Your task to perform on an android device: toggle wifi Image 0: 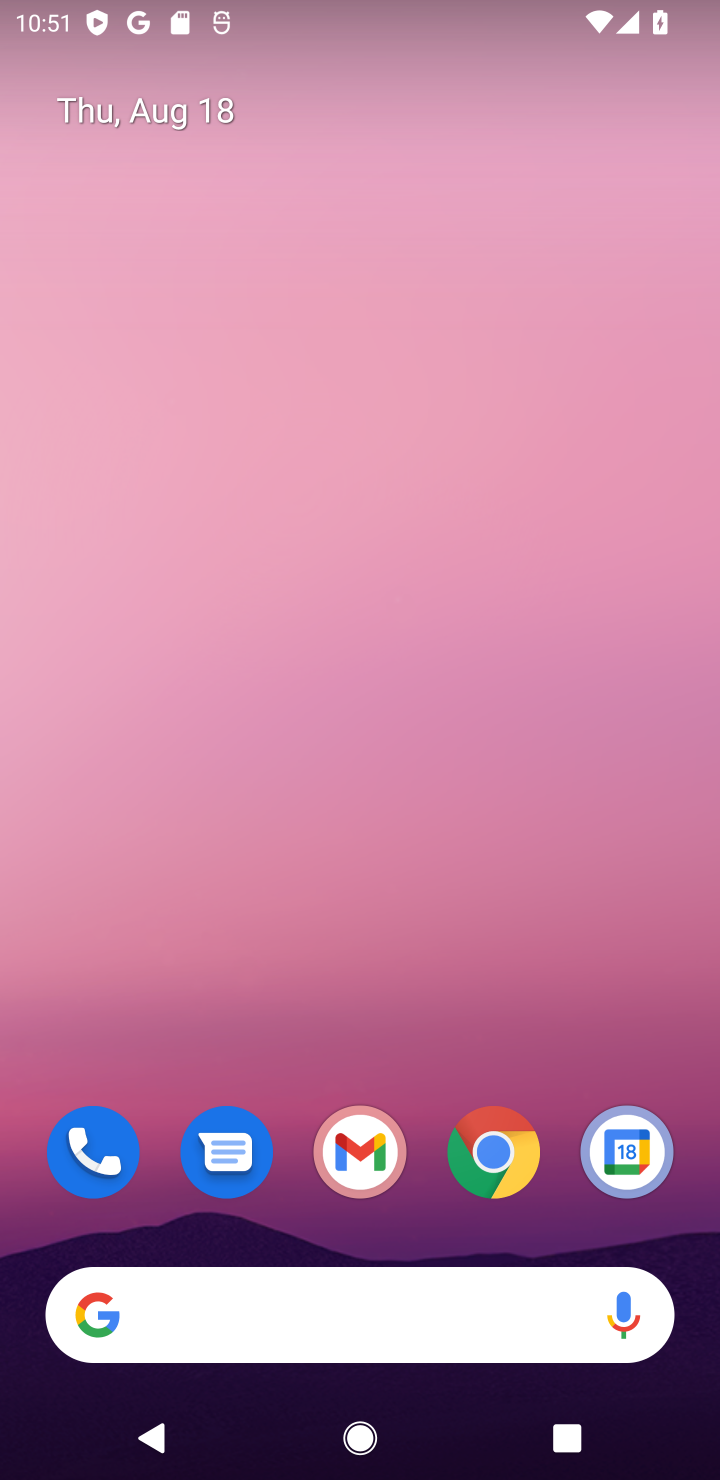
Step 0: drag from (361, 941) to (327, 0)
Your task to perform on an android device: toggle wifi Image 1: 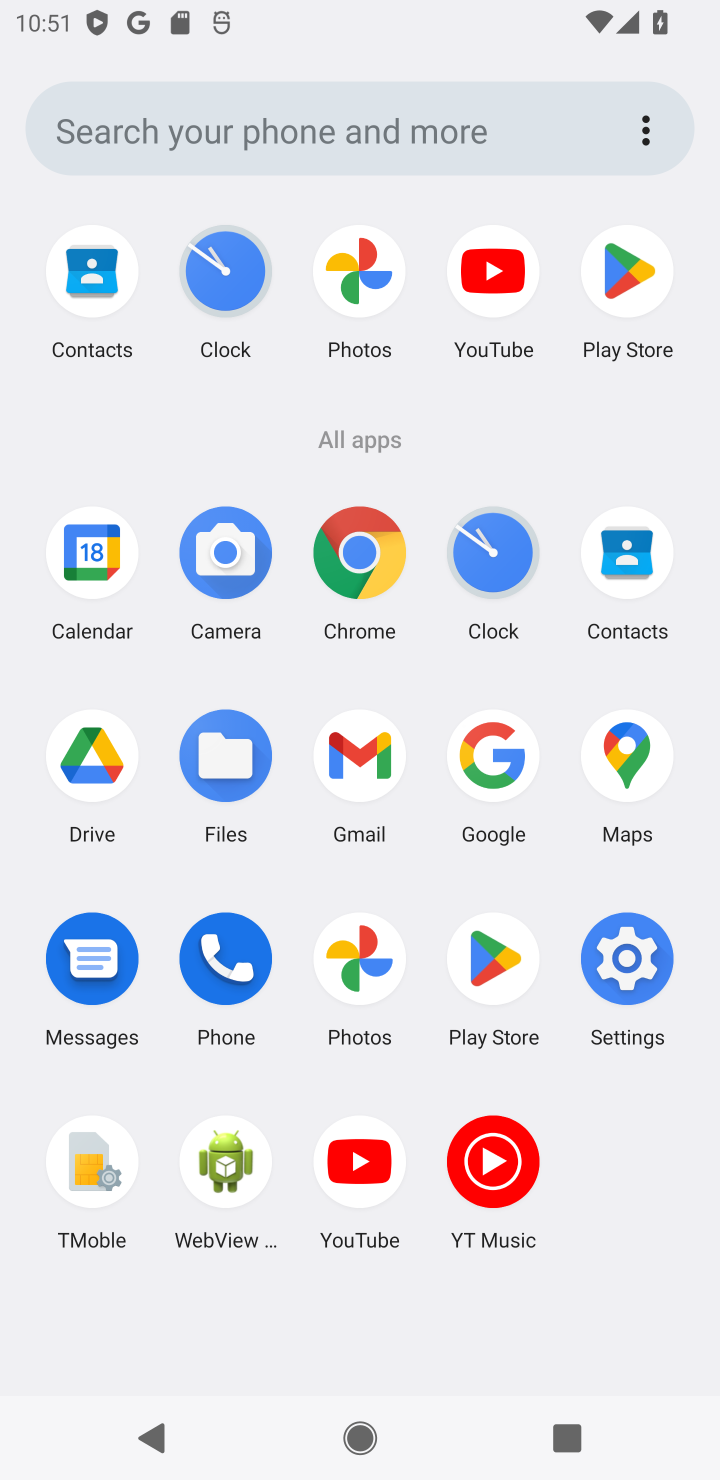
Step 1: click (630, 950)
Your task to perform on an android device: toggle wifi Image 2: 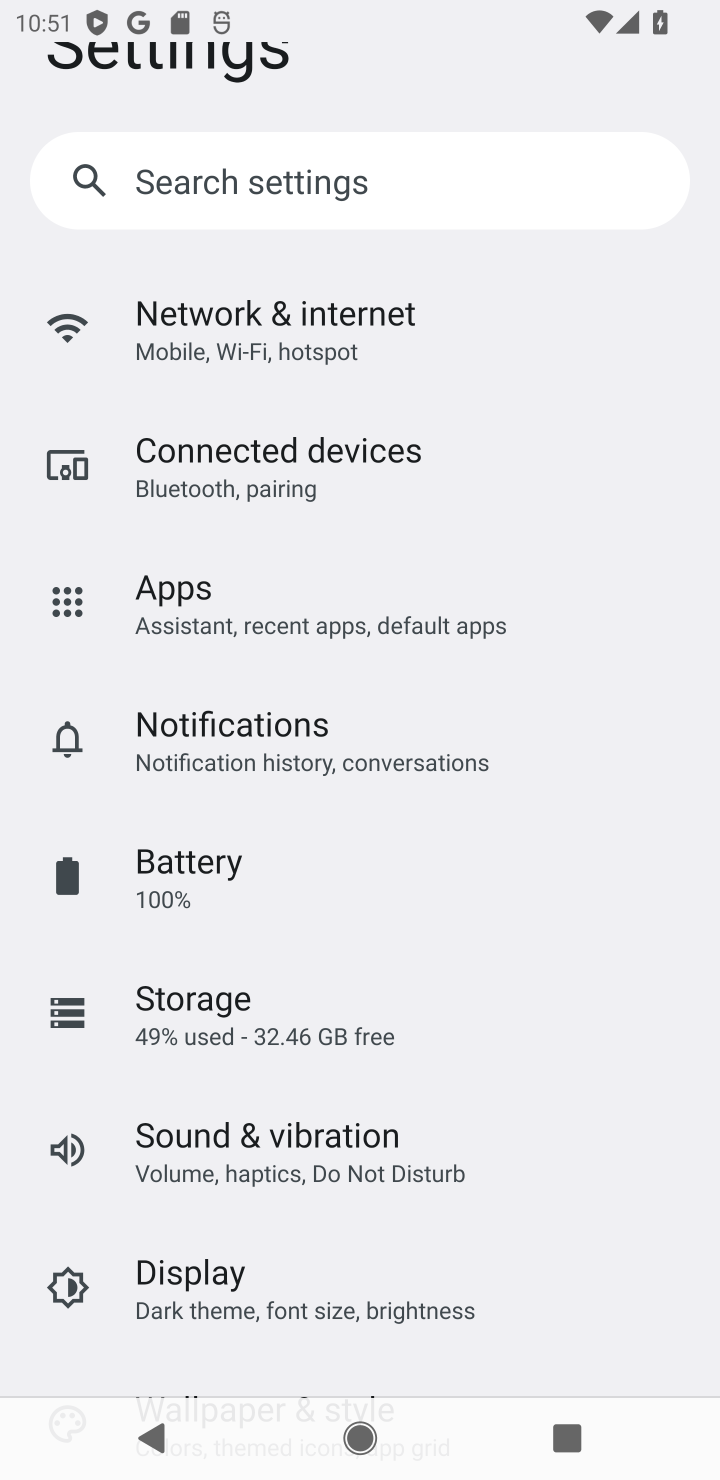
Step 2: click (381, 332)
Your task to perform on an android device: toggle wifi Image 3: 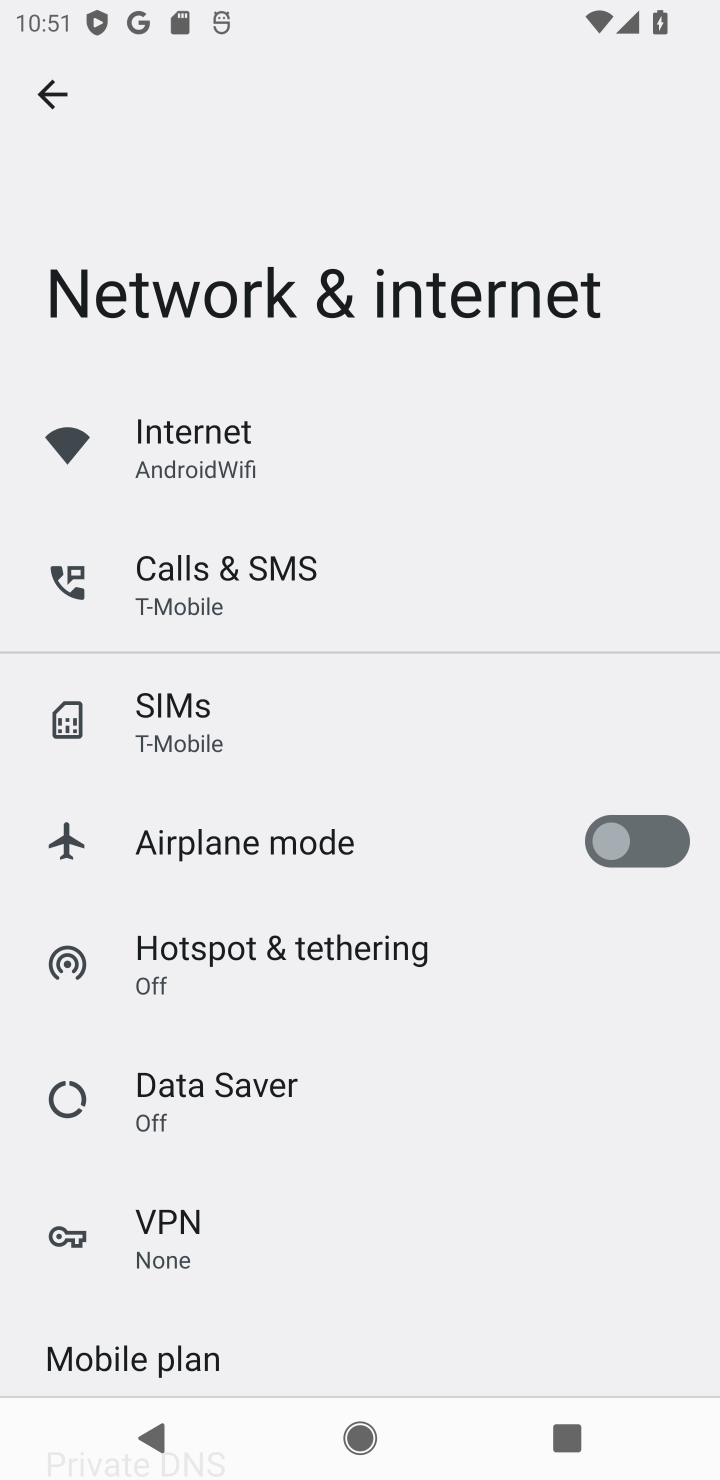
Step 3: click (209, 453)
Your task to perform on an android device: toggle wifi Image 4: 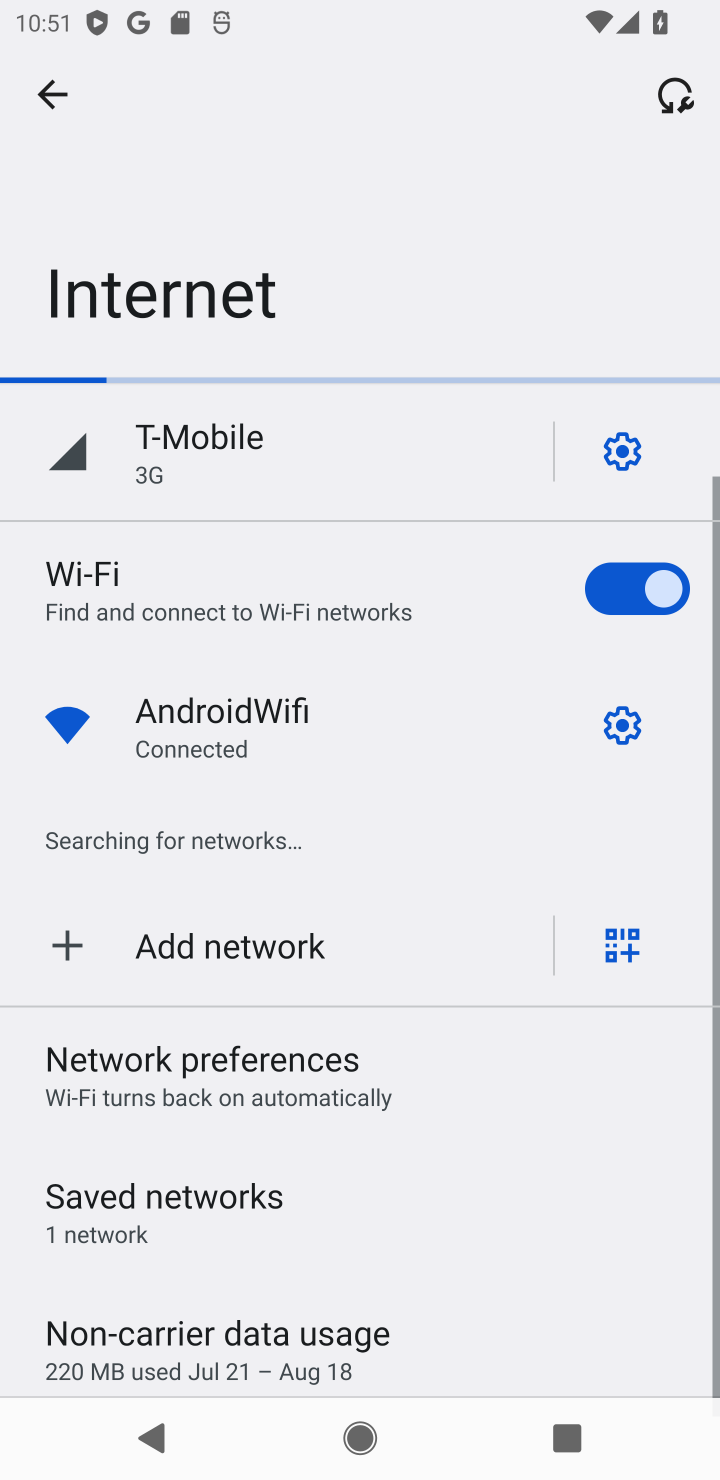
Step 4: click (632, 575)
Your task to perform on an android device: toggle wifi Image 5: 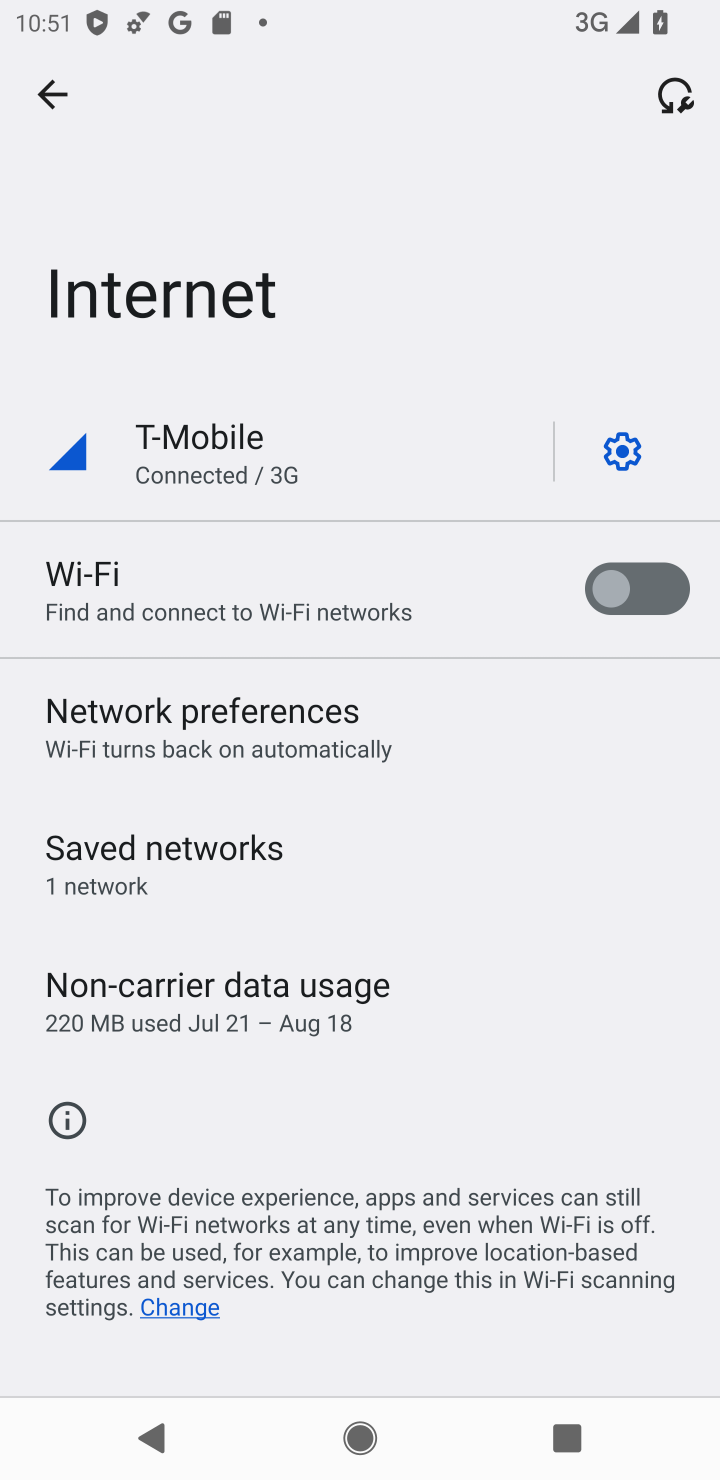
Step 5: task complete